Your task to perform on an android device: Do I have any events today? Image 0: 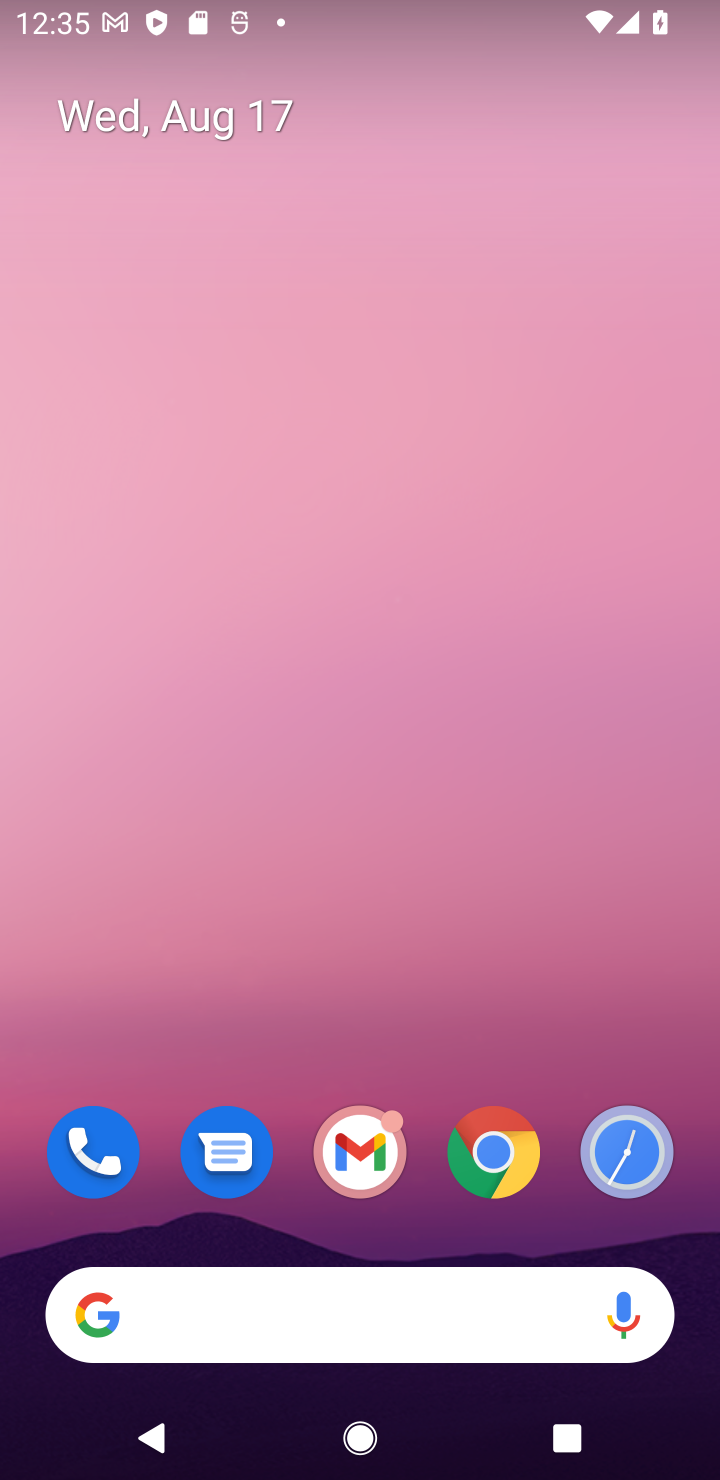
Step 0: drag from (566, 1205) to (283, 79)
Your task to perform on an android device: Do I have any events today? Image 1: 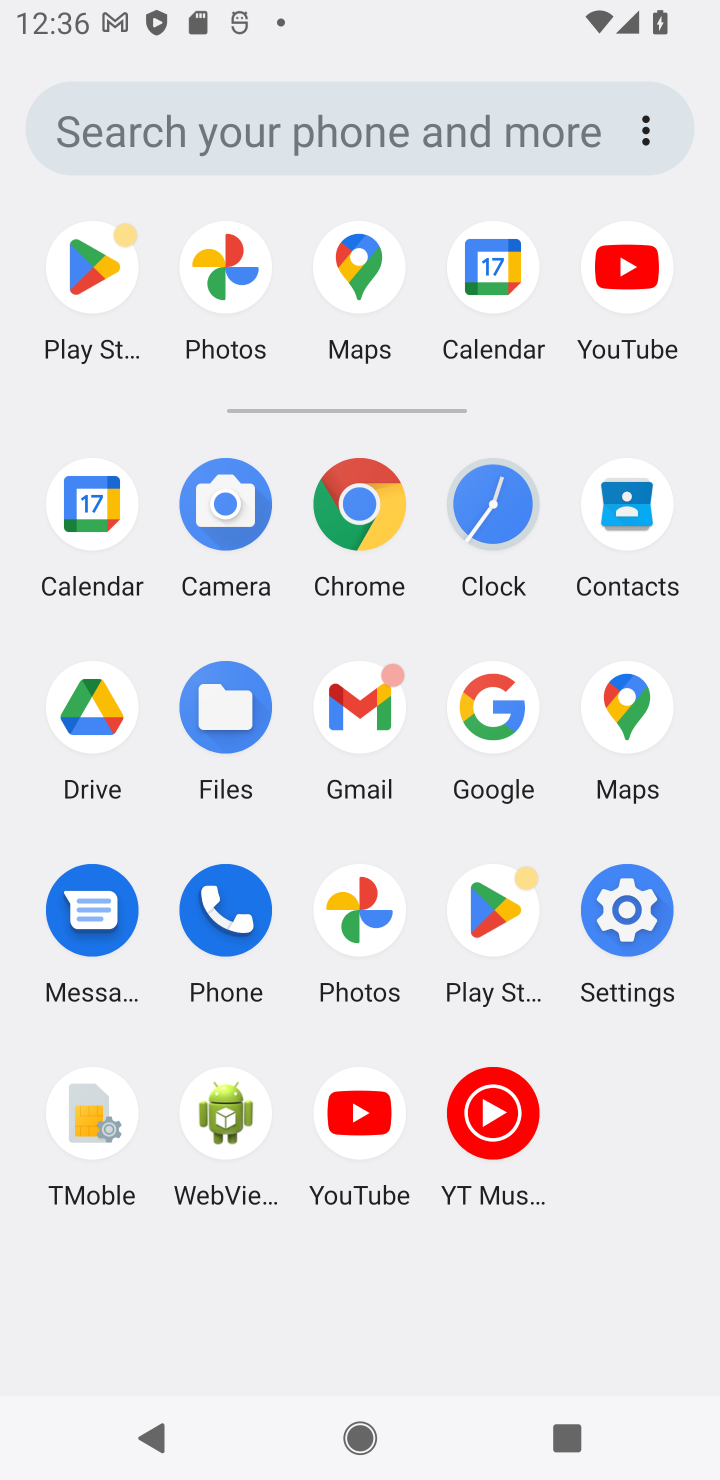
Step 1: click (82, 518)
Your task to perform on an android device: Do I have any events today? Image 2: 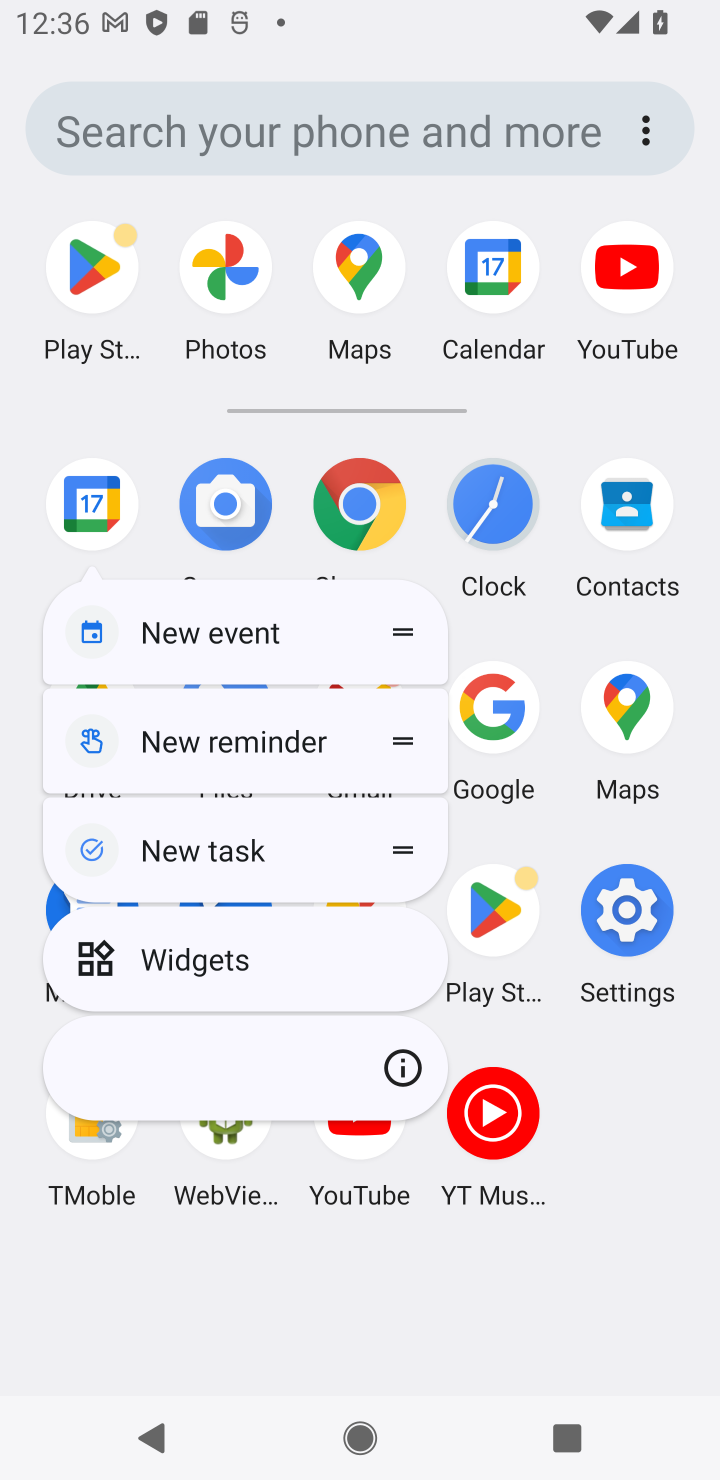
Step 2: click (82, 518)
Your task to perform on an android device: Do I have any events today? Image 3: 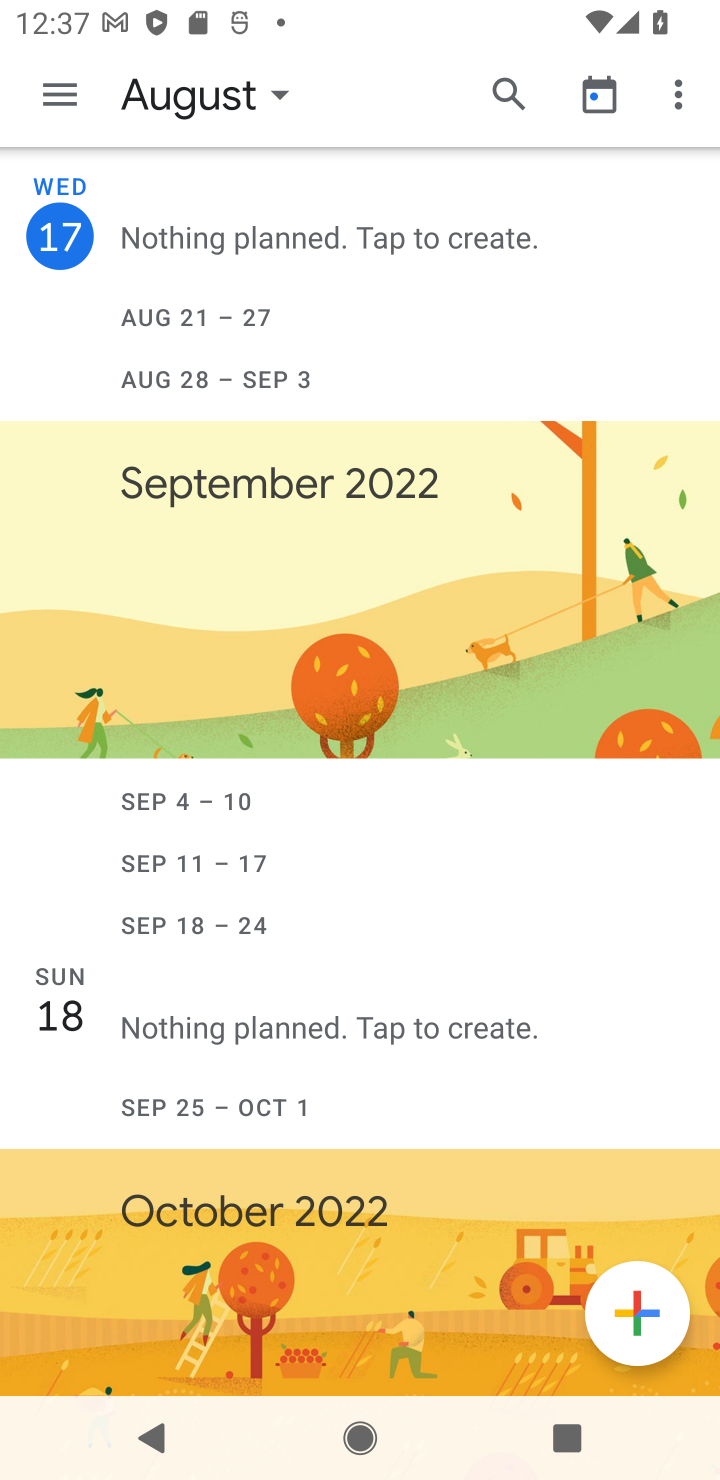
Step 3: task complete